Your task to perform on an android device: Go to privacy settings Image 0: 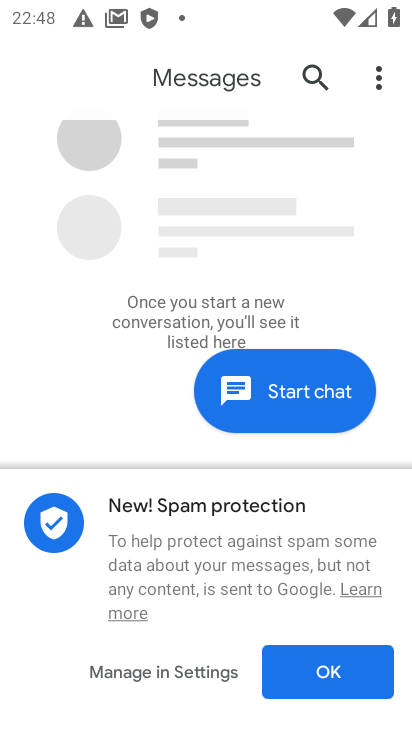
Step 0: press back button
Your task to perform on an android device: Go to privacy settings Image 1: 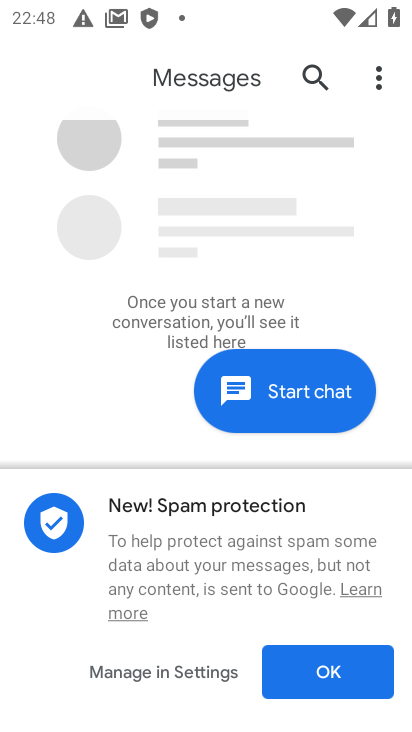
Step 1: press back button
Your task to perform on an android device: Go to privacy settings Image 2: 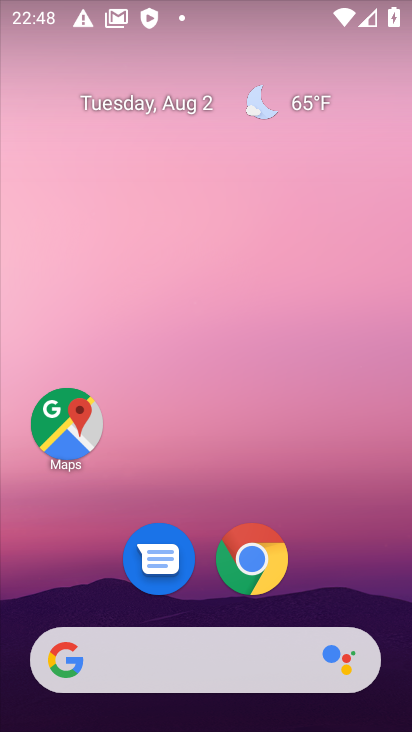
Step 2: drag from (249, 719) to (155, 156)
Your task to perform on an android device: Go to privacy settings Image 3: 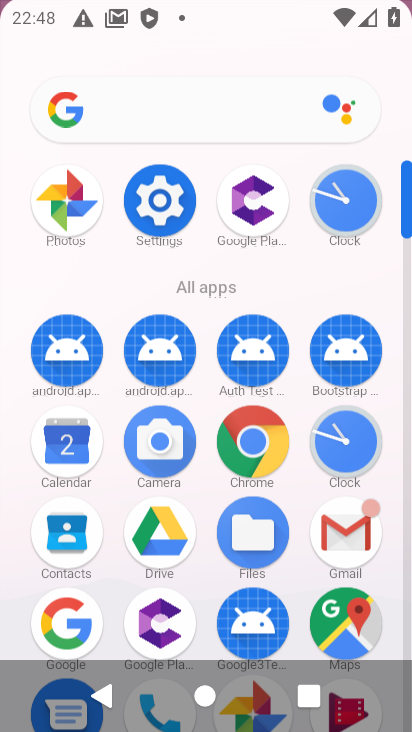
Step 3: drag from (219, 505) to (160, 32)
Your task to perform on an android device: Go to privacy settings Image 4: 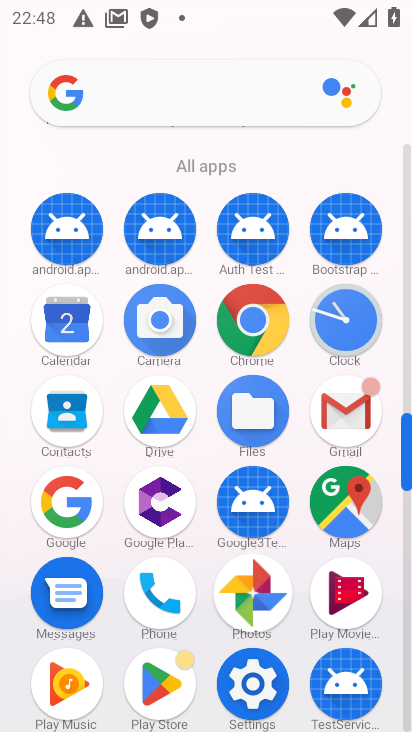
Step 4: click (251, 685)
Your task to perform on an android device: Go to privacy settings Image 5: 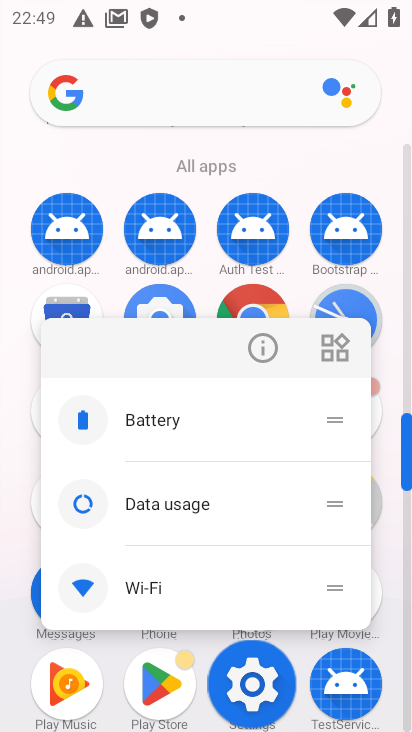
Step 5: click (258, 698)
Your task to perform on an android device: Go to privacy settings Image 6: 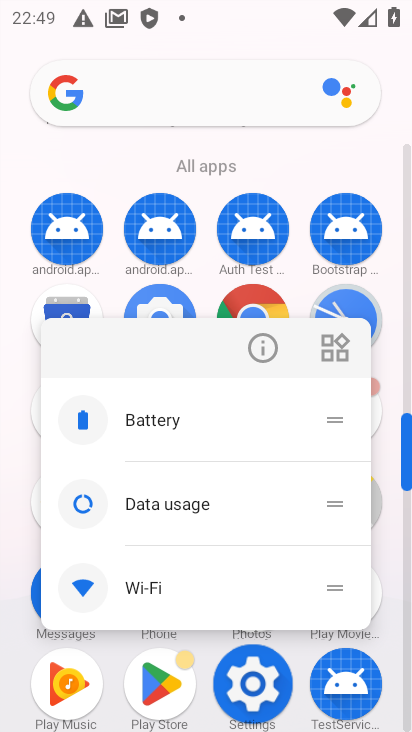
Step 6: click (251, 690)
Your task to perform on an android device: Go to privacy settings Image 7: 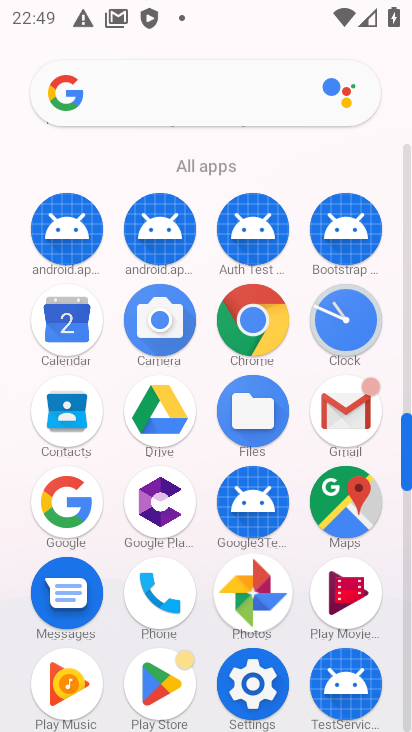
Step 7: click (251, 690)
Your task to perform on an android device: Go to privacy settings Image 8: 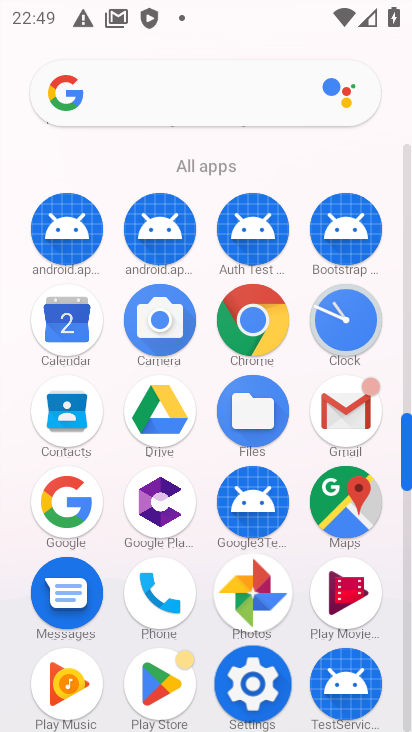
Step 8: click (251, 690)
Your task to perform on an android device: Go to privacy settings Image 9: 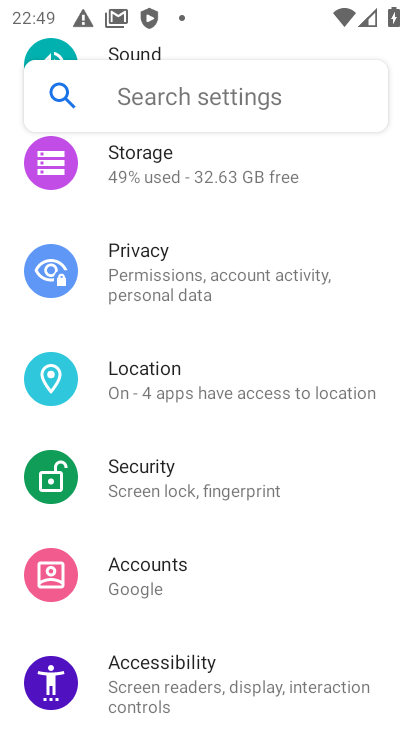
Step 9: click (253, 688)
Your task to perform on an android device: Go to privacy settings Image 10: 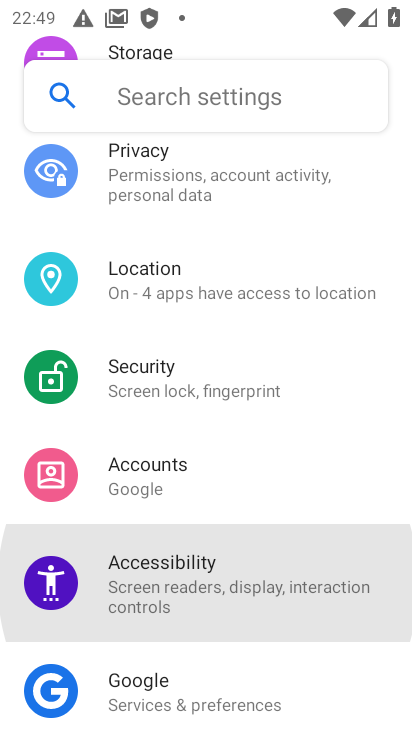
Step 10: click (252, 686)
Your task to perform on an android device: Go to privacy settings Image 11: 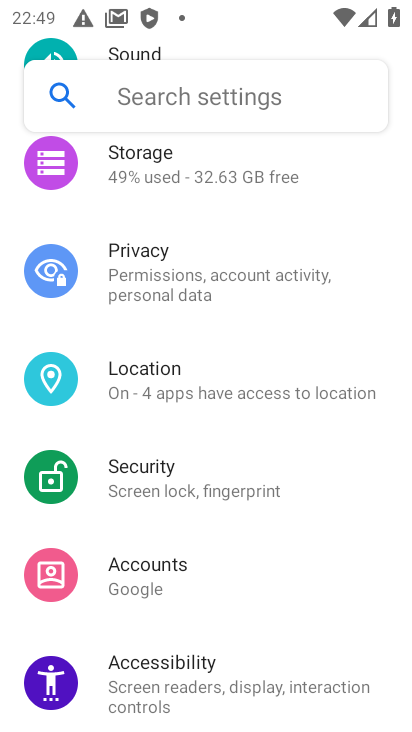
Step 11: click (130, 266)
Your task to perform on an android device: Go to privacy settings Image 12: 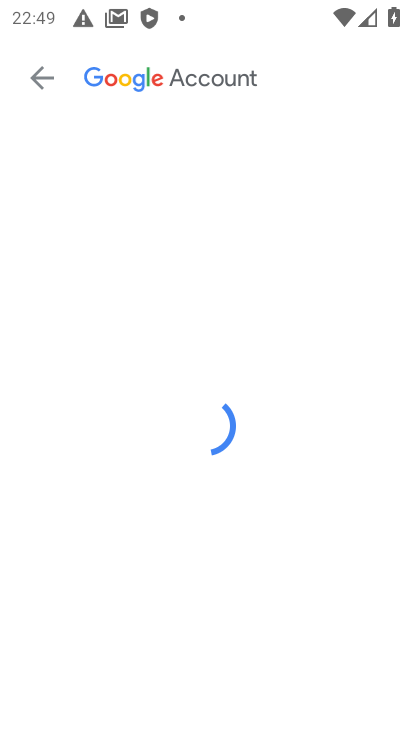
Step 12: click (130, 266)
Your task to perform on an android device: Go to privacy settings Image 13: 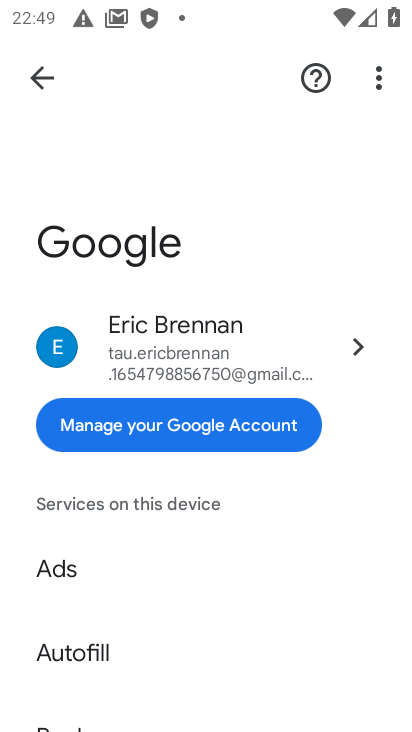
Step 13: task complete